Your task to perform on an android device: create a new album in the google photos Image 0: 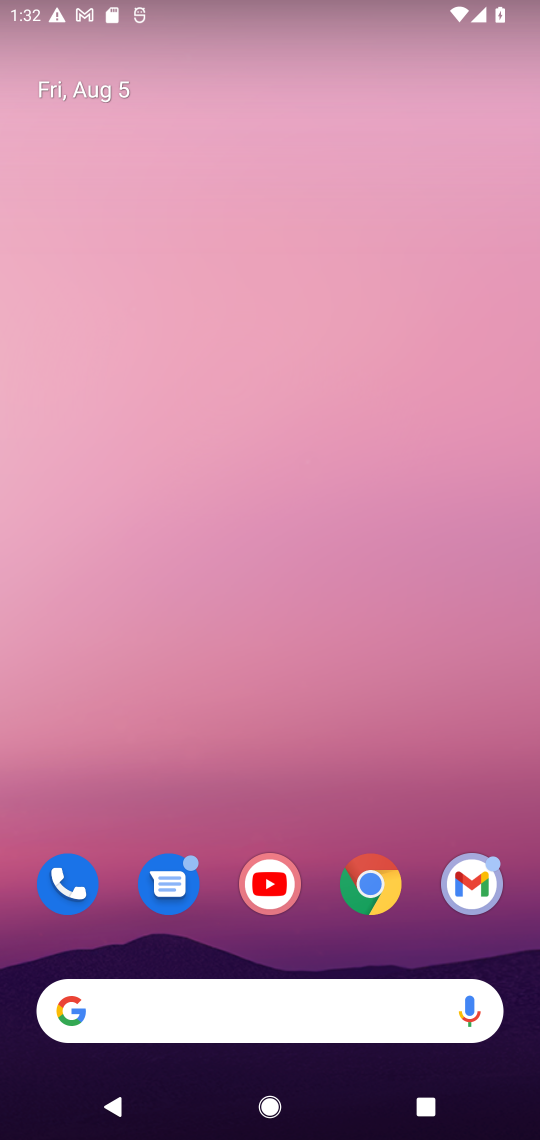
Step 0: drag from (435, 927) to (217, 3)
Your task to perform on an android device: create a new album in the google photos Image 1: 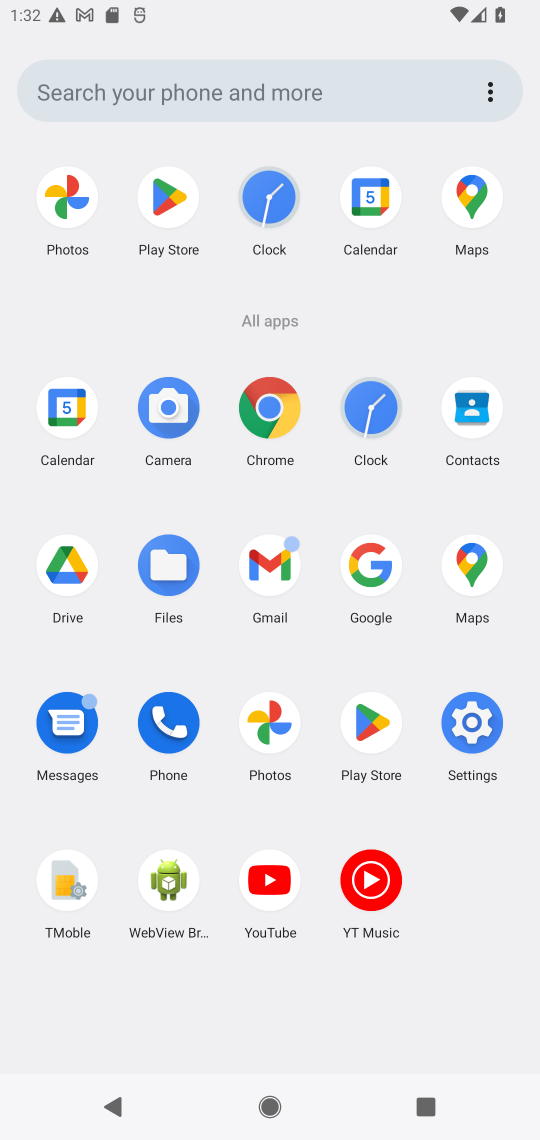
Step 1: click (261, 703)
Your task to perform on an android device: create a new album in the google photos Image 2: 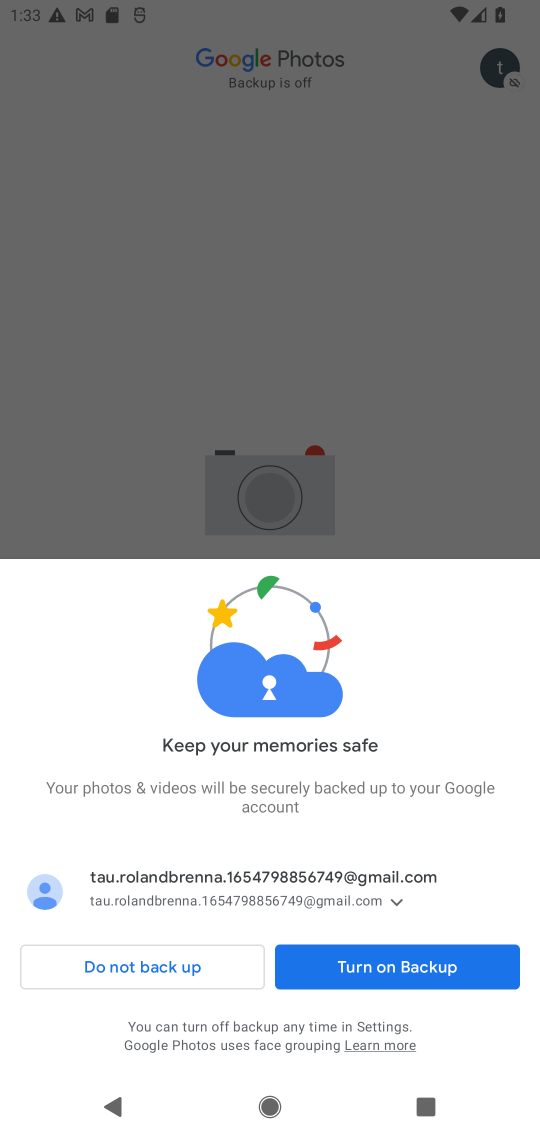
Step 2: task complete